Your task to perform on an android device: change keyboard looks Image 0: 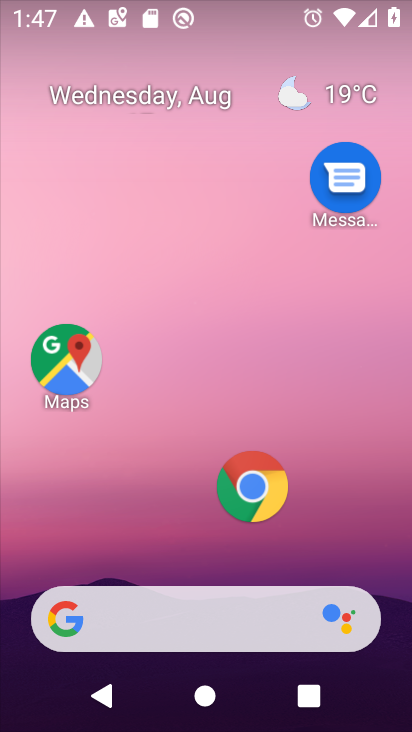
Step 0: drag from (114, 478) to (182, 67)
Your task to perform on an android device: change keyboard looks Image 1: 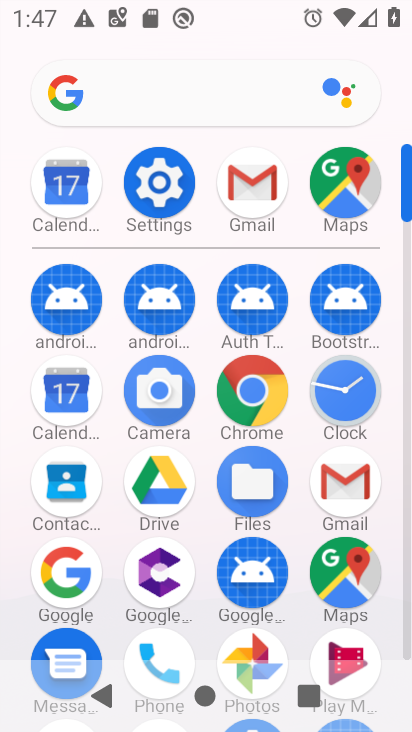
Step 1: click (165, 186)
Your task to perform on an android device: change keyboard looks Image 2: 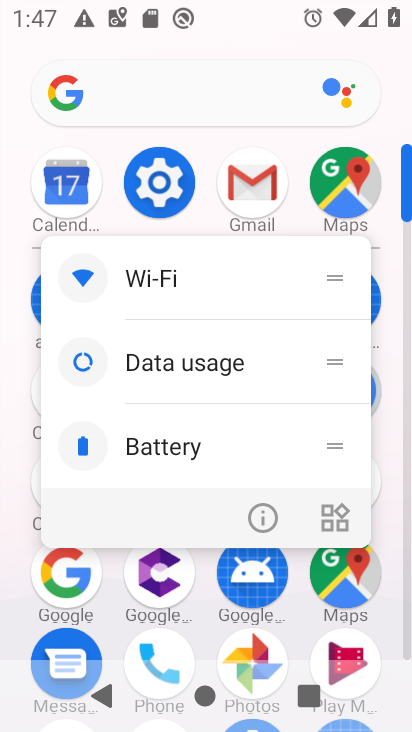
Step 2: click (165, 186)
Your task to perform on an android device: change keyboard looks Image 3: 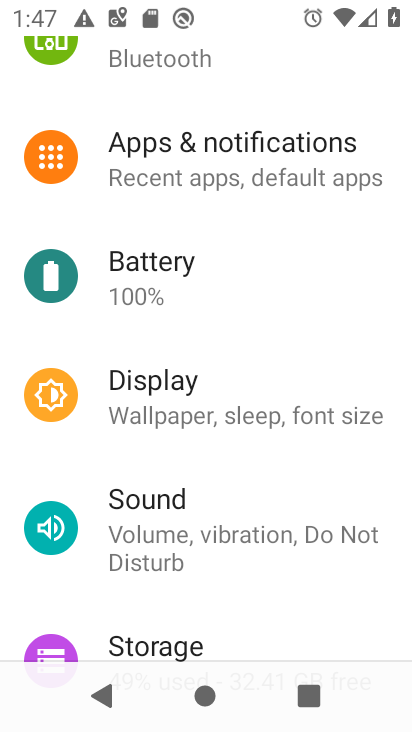
Step 3: drag from (179, 665) to (313, 13)
Your task to perform on an android device: change keyboard looks Image 4: 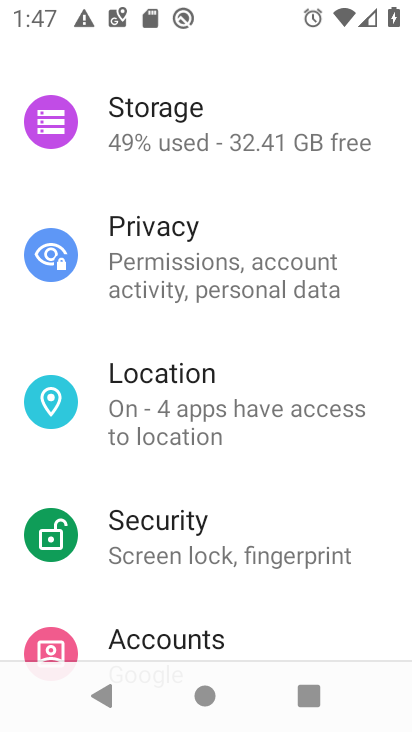
Step 4: drag from (174, 611) to (249, 23)
Your task to perform on an android device: change keyboard looks Image 5: 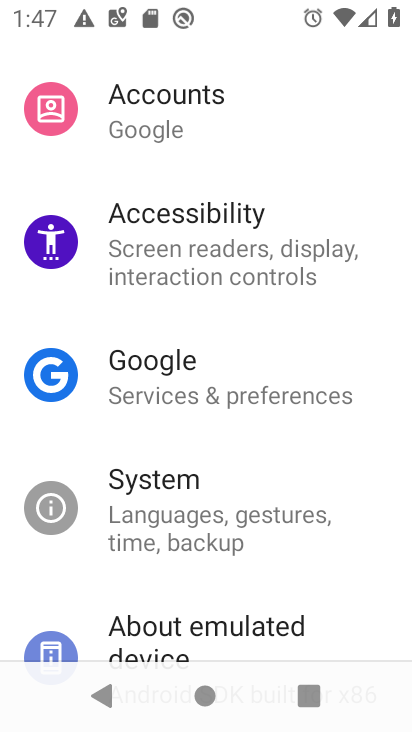
Step 5: click (169, 510)
Your task to perform on an android device: change keyboard looks Image 6: 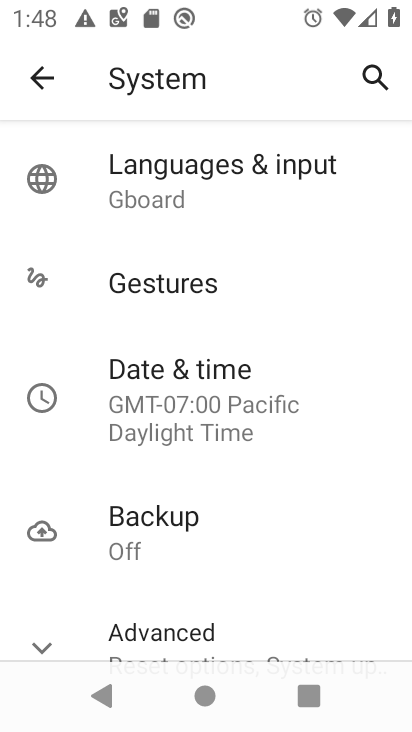
Step 6: click (166, 177)
Your task to perform on an android device: change keyboard looks Image 7: 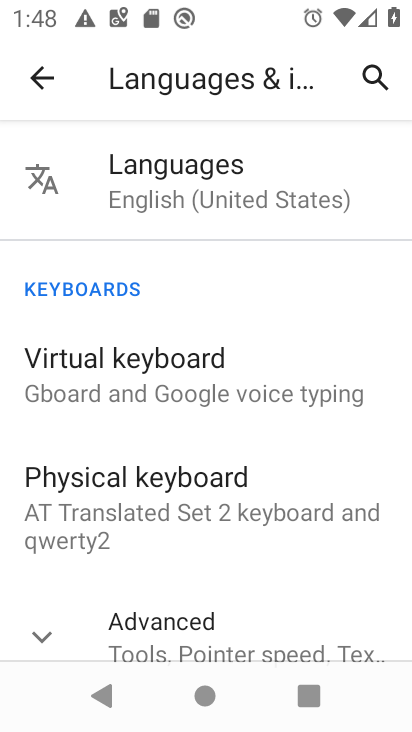
Step 7: click (199, 360)
Your task to perform on an android device: change keyboard looks Image 8: 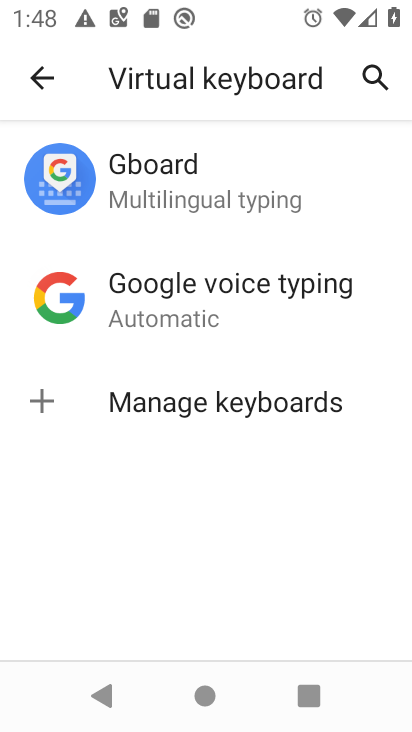
Step 8: click (144, 184)
Your task to perform on an android device: change keyboard looks Image 9: 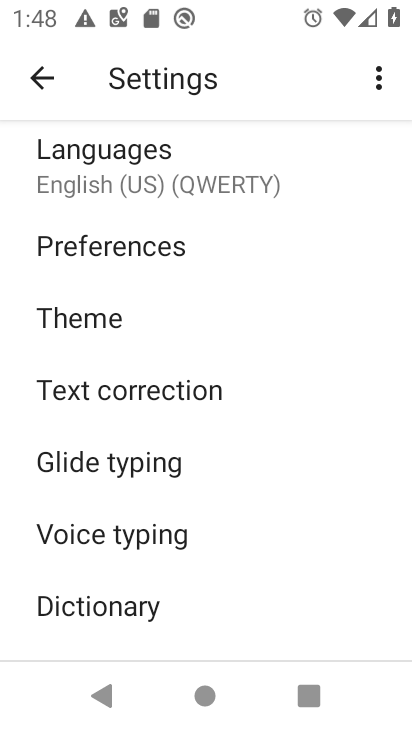
Step 9: click (99, 321)
Your task to perform on an android device: change keyboard looks Image 10: 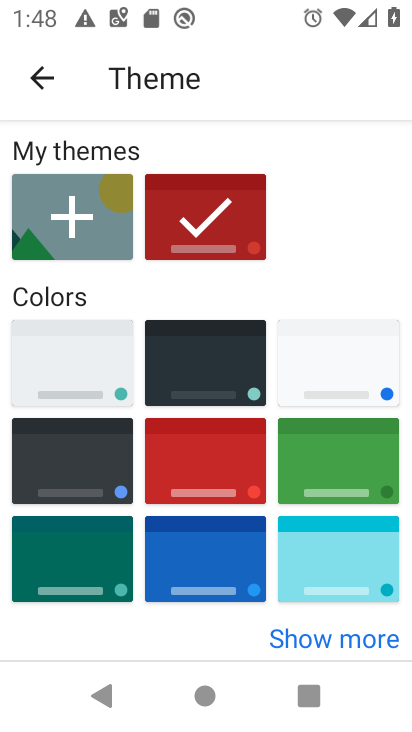
Step 10: click (338, 469)
Your task to perform on an android device: change keyboard looks Image 11: 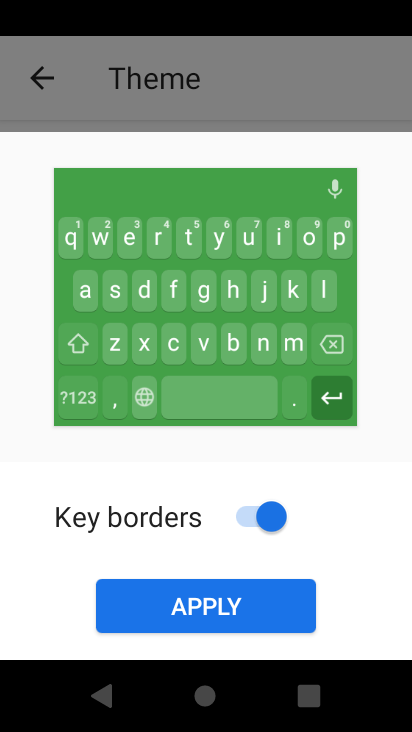
Step 11: click (217, 612)
Your task to perform on an android device: change keyboard looks Image 12: 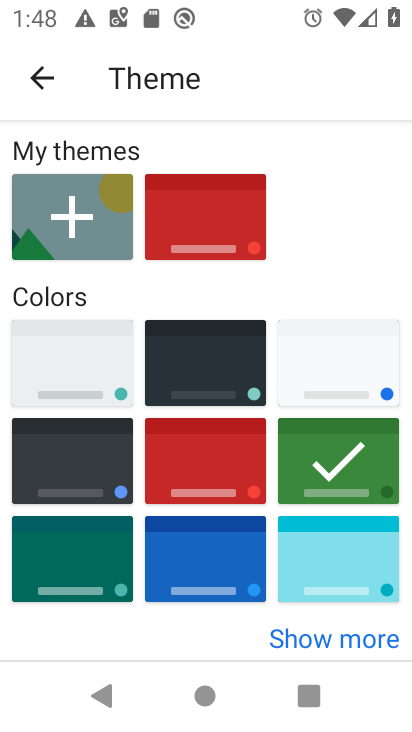
Step 12: task complete